Your task to perform on an android device: manage bookmarks in the chrome app Image 0: 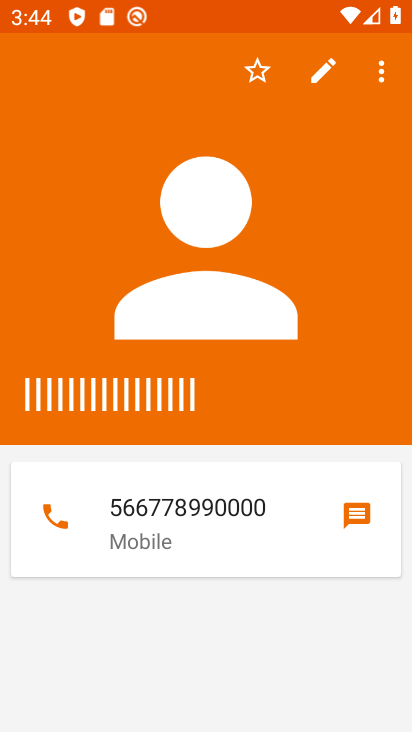
Step 0: press home button
Your task to perform on an android device: manage bookmarks in the chrome app Image 1: 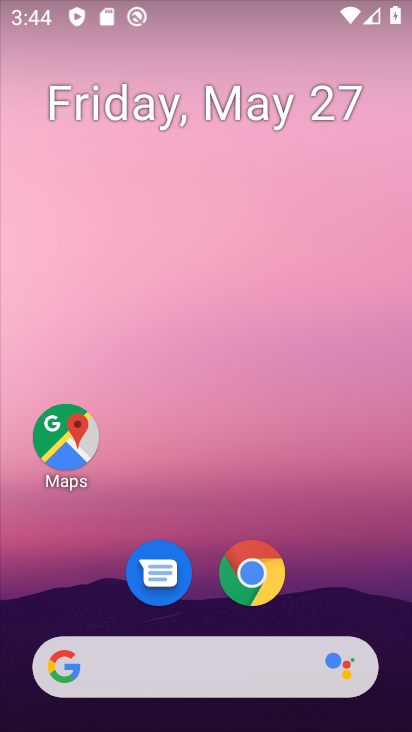
Step 1: drag from (365, 588) to (399, 223)
Your task to perform on an android device: manage bookmarks in the chrome app Image 2: 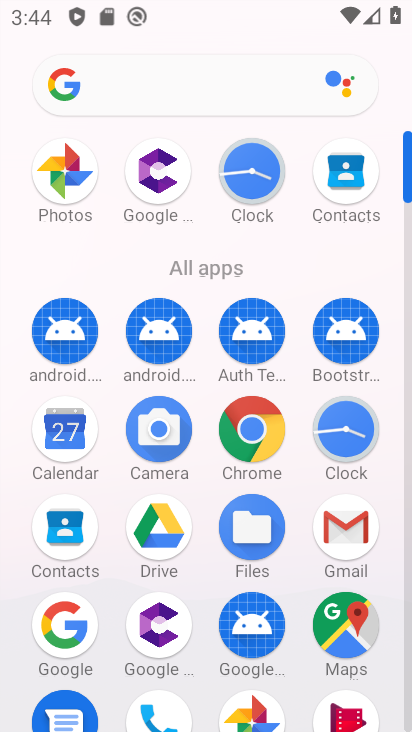
Step 2: click (267, 419)
Your task to perform on an android device: manage bookmarks in the chrome app Image 3: 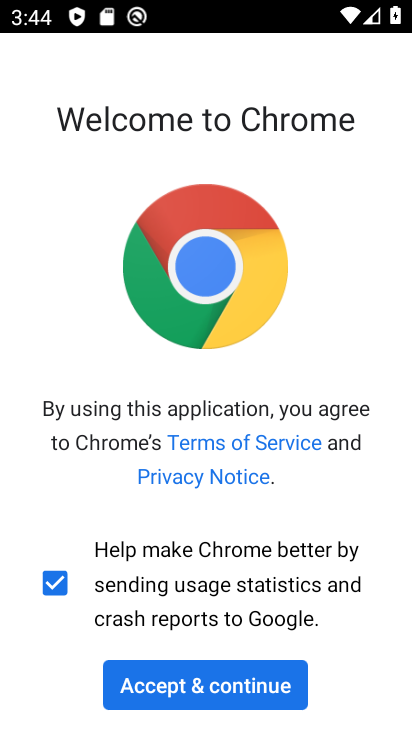
Step 3: click (204, 701)
Your task to perform on an android device: manage bookmarks in the chrome app Image 4: 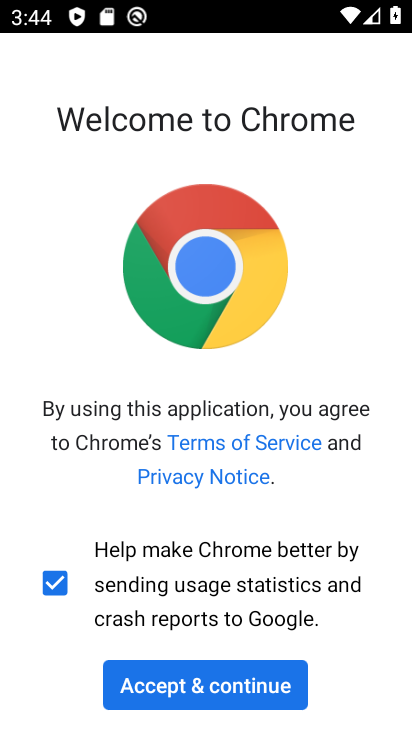
Step 4: click (204, 701)
Your task to perform on an android device: manage bookmarks in the chrome app Image 5: 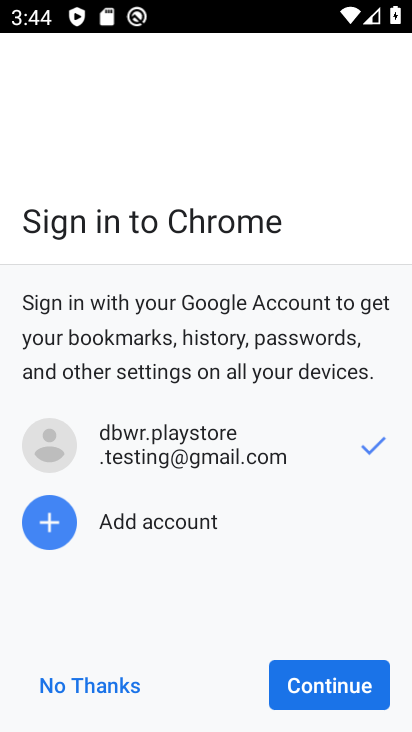
Step 5: click (273, 698)
Your task to perform on an android device: manage bookmarks in the chrome app Image 6: 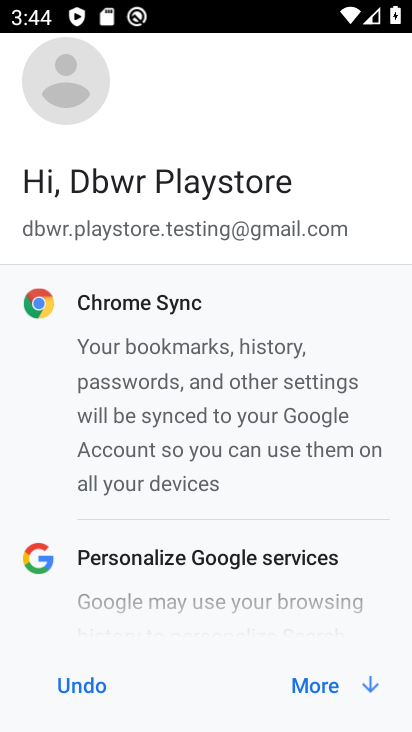
Step 6: click (307, 691)
Your task to perform on an android device: manage bookmarks in the chrome app Image 7: 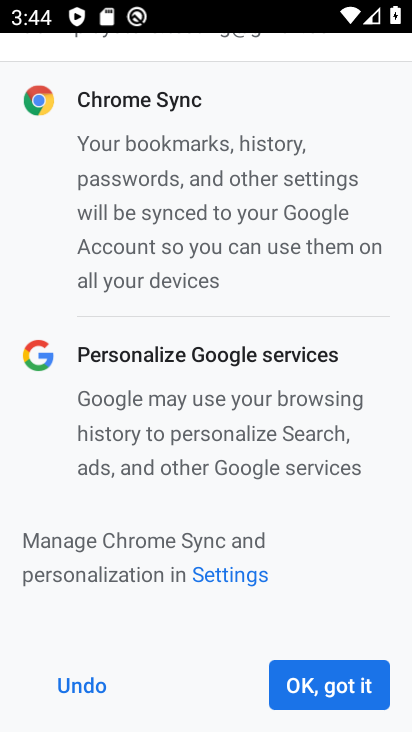
Step 7: click (310, 675)
Your task to perform on an android device: manage bookmarks in the chrome app Image 8: 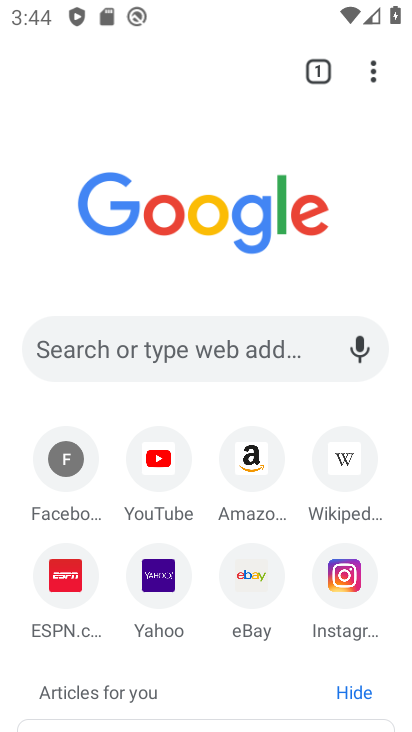
Step 8: click (377, 73)
Your task to perform on an android device: manage bookmarks in the chrome app Image 9: 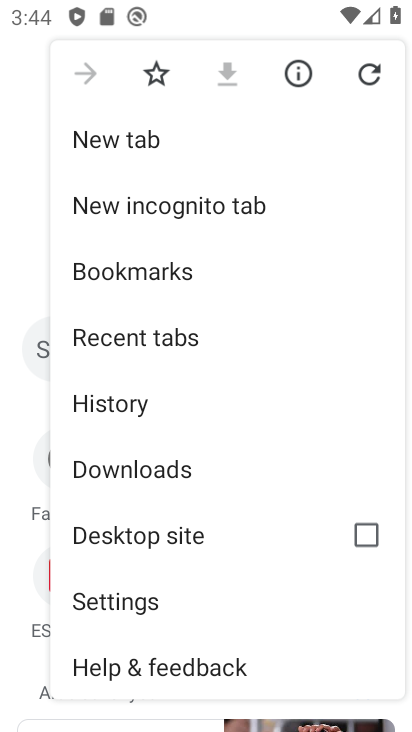
Step 9: click (220, 271)
Your task to perform on an android device: manage bookmarks in the chrome app Image 10: 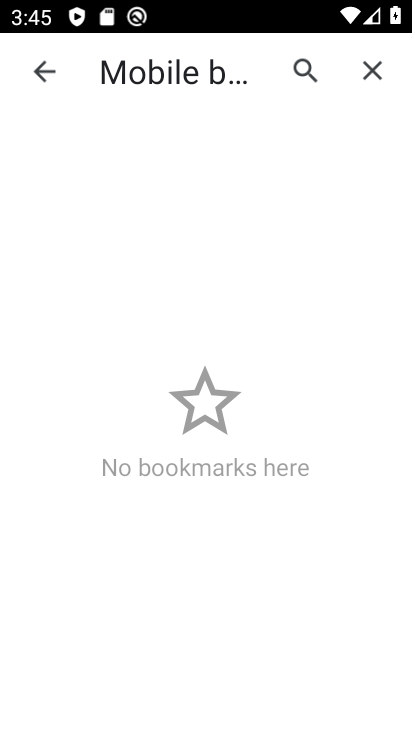
Step 10: task complete